Your task to perform on an android device: Open the stopwatch Image 0: 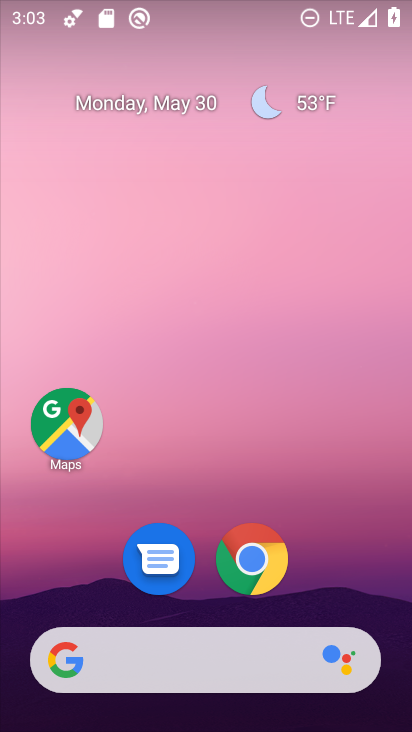
Step 0: drag from (61, 627) to (201, 109)
Your task to perform on an android device: Open the stopwatch Image 1: 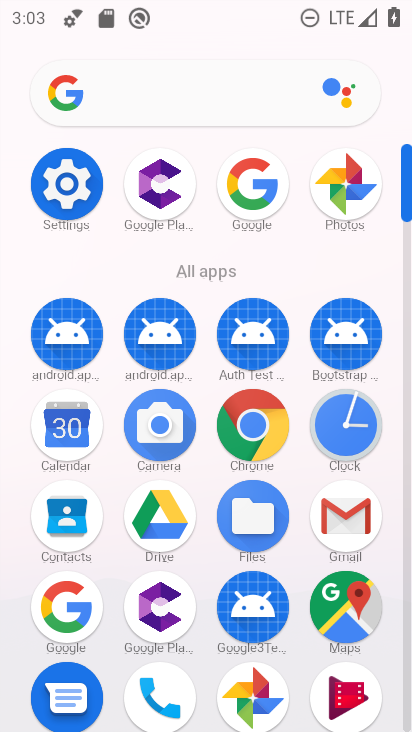
Step 1: click (353, 427)
Your task to perform on an android device: Open the stopwatch Image 2: 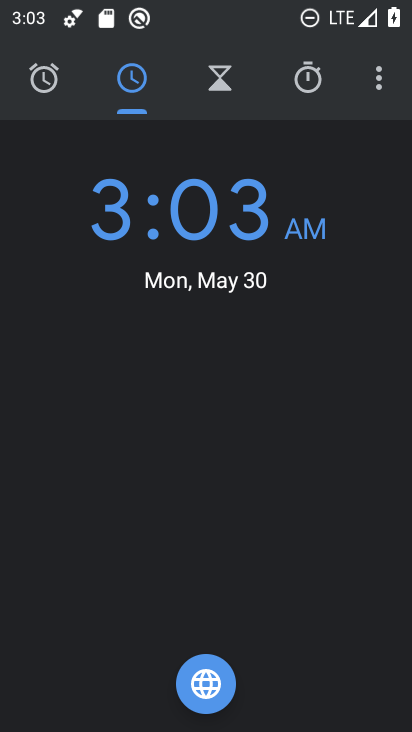
Step 2: click (310, 88)
Your task to perform on an android device: Open the stopwatch Image 3: 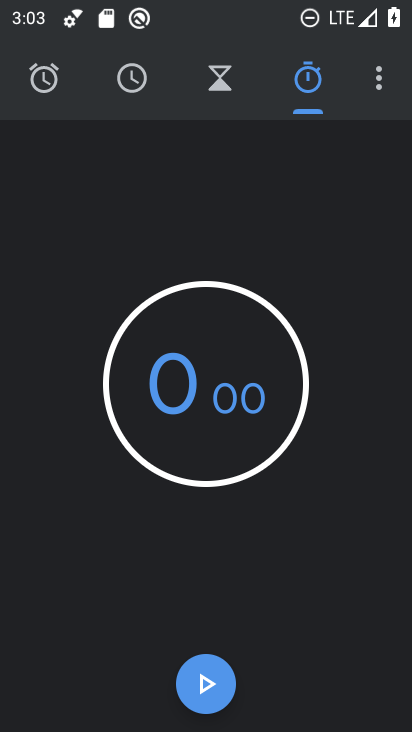
Step 3: task complete